Your task to perform on an android device: Open calendar and show me the fourth week of next month Image 0: 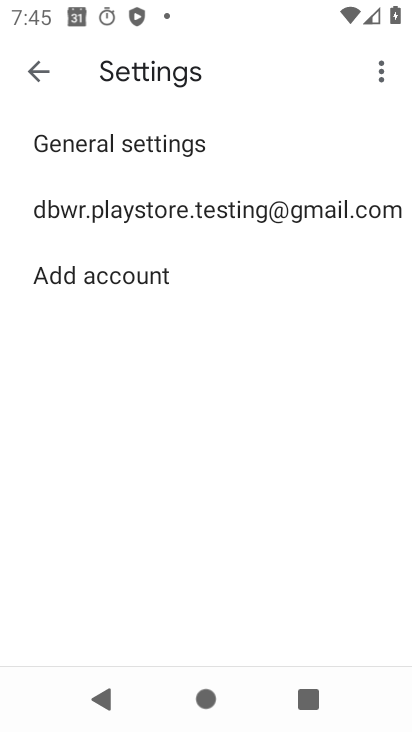
Step 0: press home button
Your task to perform on an android device: Open calendar and show me the fourth week of next month Image 1: 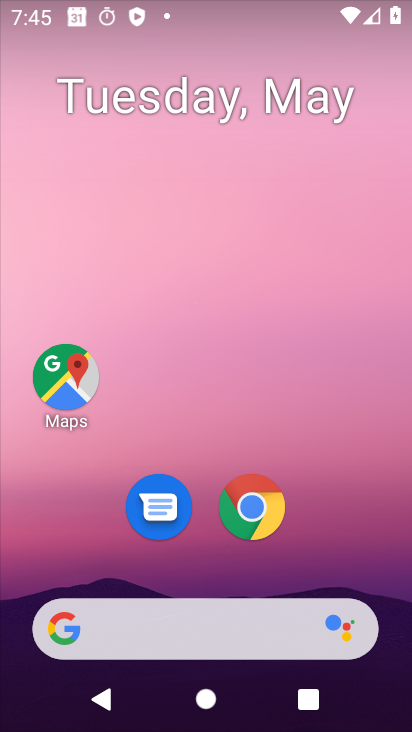
Step 1: drag from (282, 568) to (267, 23)
Your task to perform on an android device: Open calendar and show me the fourth week of next month Image 2: 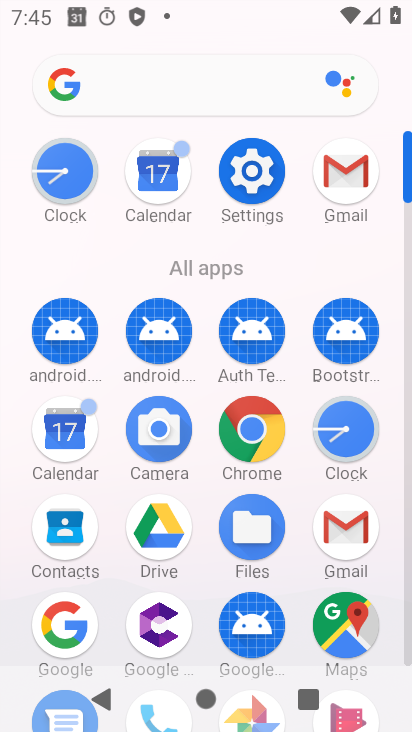
Step 2: click (156, 185)
Your task to perform on an android device: Open calendar and show me the fourth week of next month Image 3: 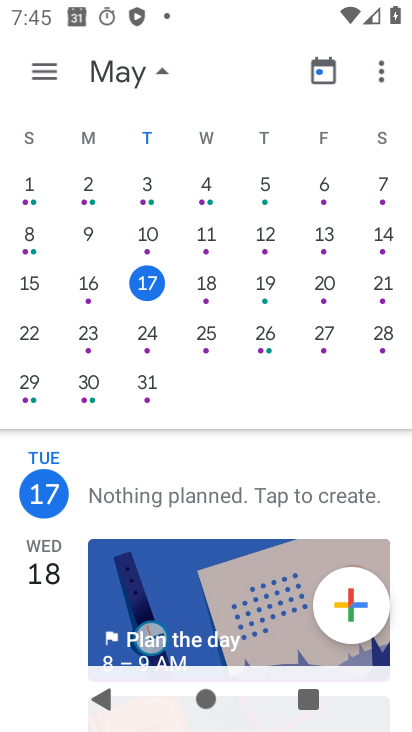
Step 3: drag from (382, 268) to (0, 262)
Your task to perform on an android device: Open calendar and show me the fourth week of next month Image 4: 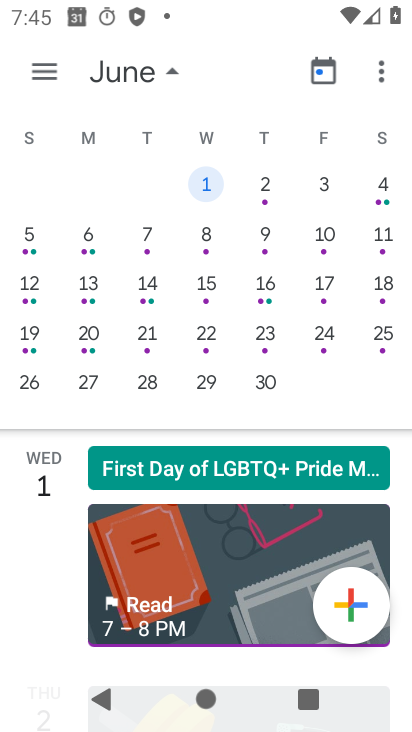
Step 4: click (33, 330)
Your task to perform on an android device: Open calendar and show me the fourth week of next month Image 5: 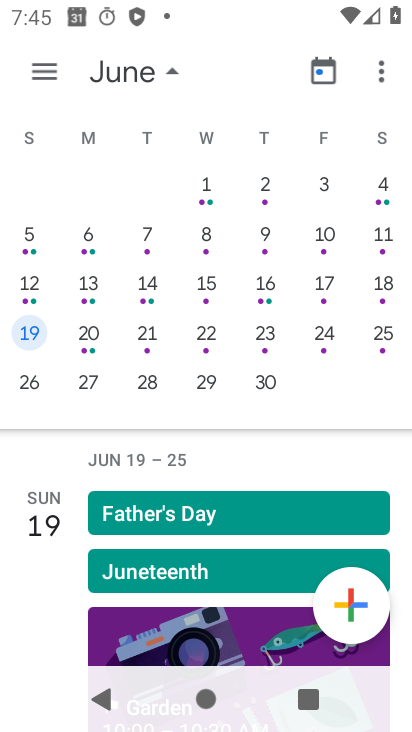
Step 5: task complete